Your task to perform on an android device: Go to privacy settings Image 0: 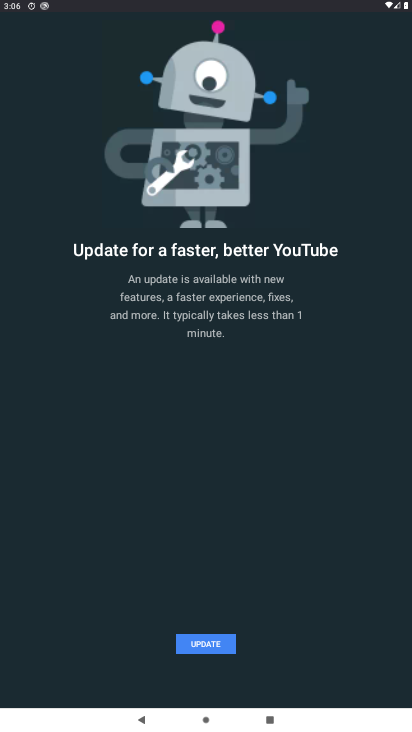
Step 0: press home button
Your task to perform on an android device: Go to privacy settings Image 1: 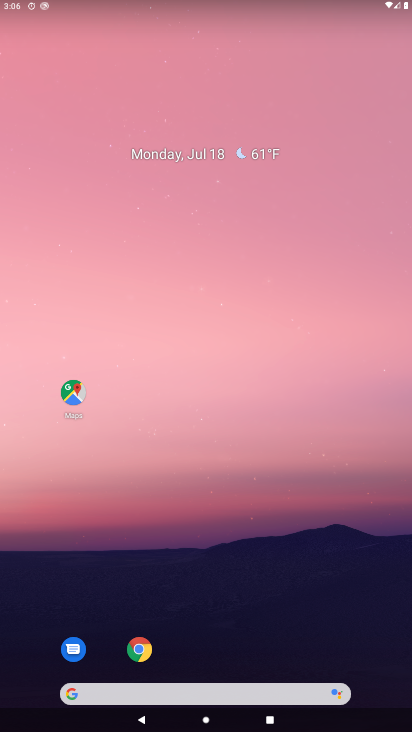
Step 1: drag from (58, 657) to (272, 88)
Your task to perform on an android device: Go to privacy settings Image 2: 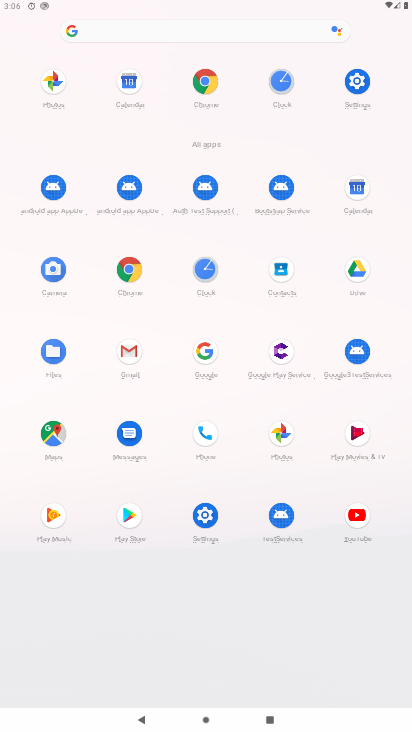
Step 2: click (213, 522)
Your task to perform on an android device: Go to privacy settings Image 3: 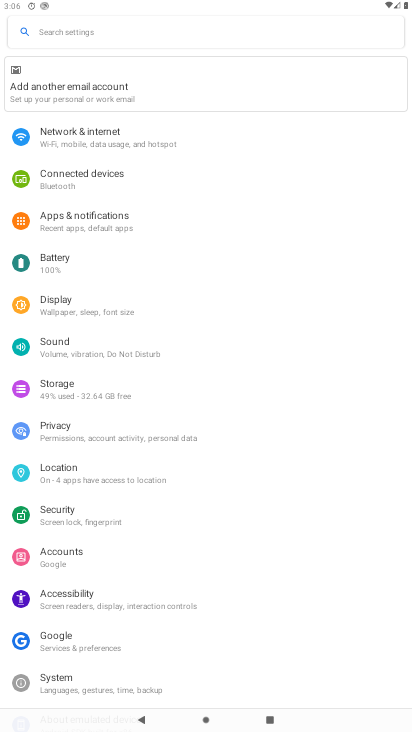
Step 3: click (100, 430)
Your task to perform on an android device: Go to privacy settings Image 4: 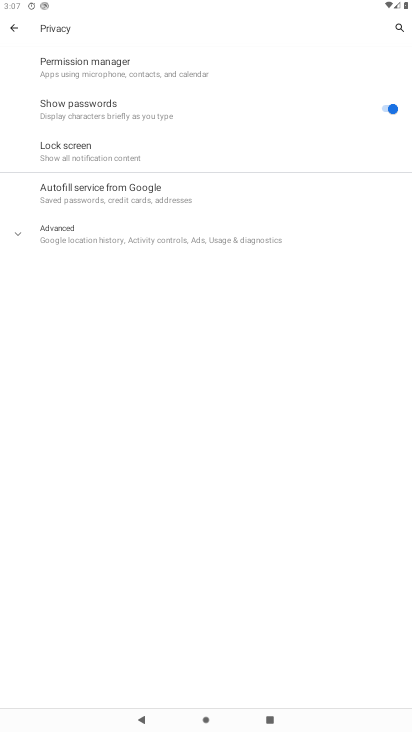
Step 4: task complete